Your task to perform on an android device: What's on my calendar today? Image 0: 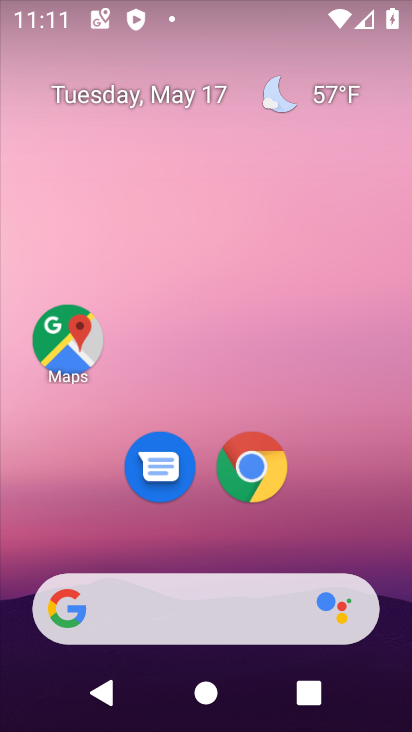
Step 0: drag from (194, 637) to (309, 166)
Your task to perform on an android device: What's on my calendar today? Image 1: 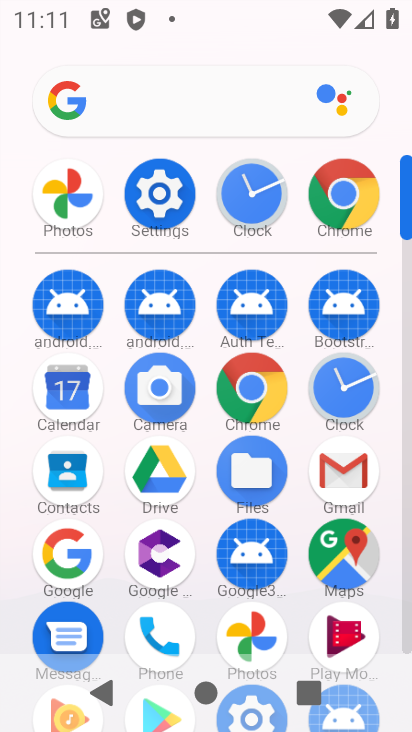
Step 1: click (75, 391)
Your task to perform on an android device: What's on my calendar today? Image 2: 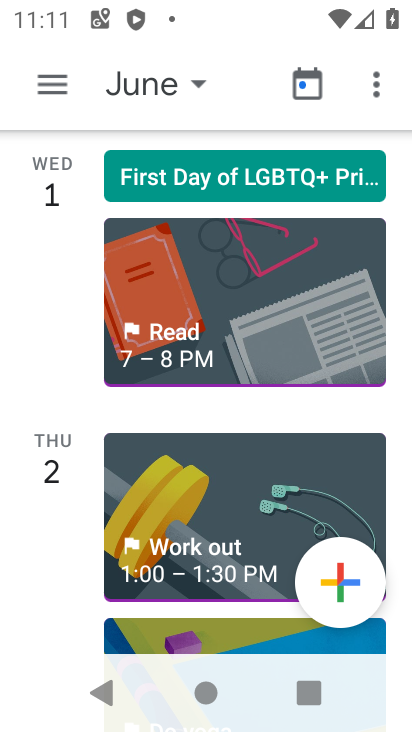
Step 2: click (8, 98)
Your task to perform on an android device: What's on my calendar today? Image 3: 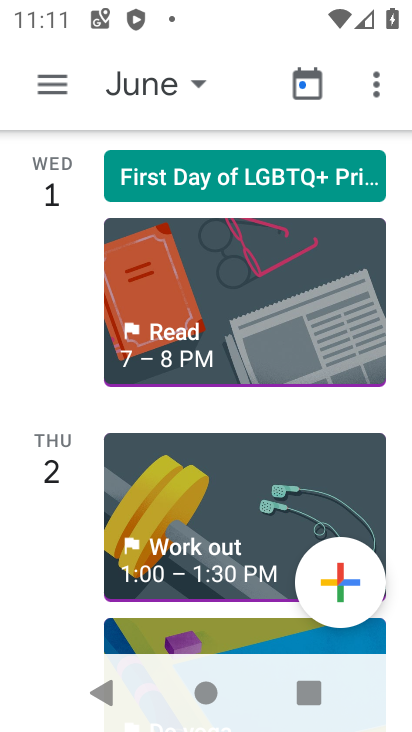
Step 3: click (53, 85)
Your task to perform on an android device: What's on my calendar today? Image 4: 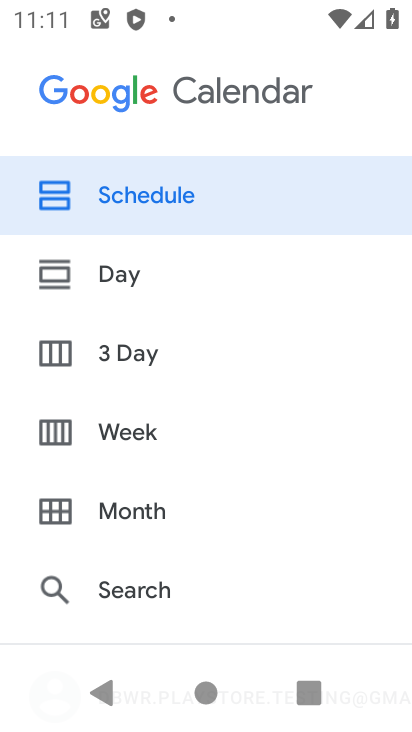
Step 4: click (115, 506)
Your task to perform on an android device: What's on my calendar today? Image 5: 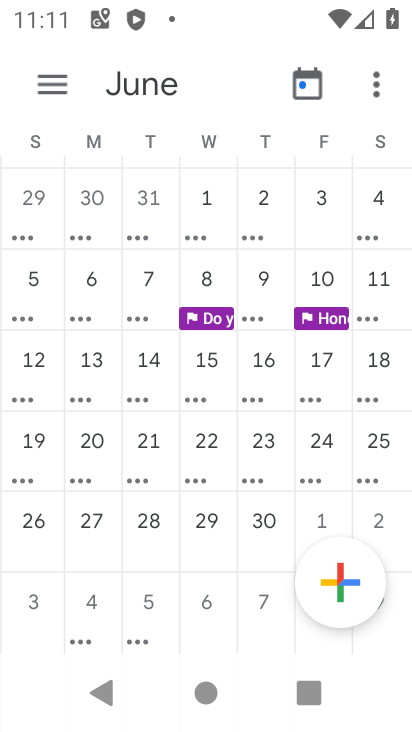
Step 5: drag from (51, 435) to (411, 416)
Your task to perform on an android device: What's on my calendar today? Image 6: 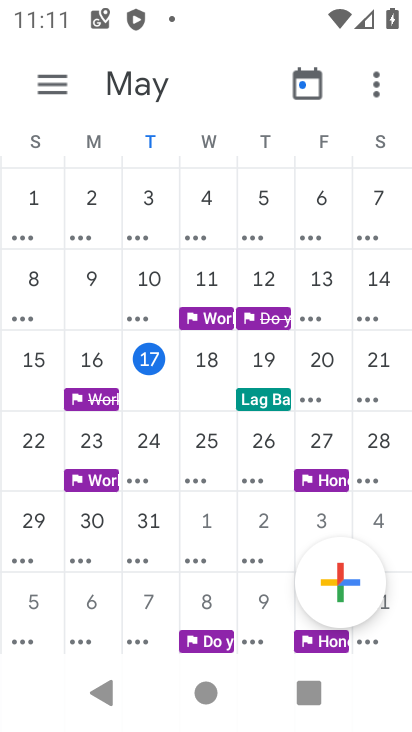
Step 6: click (148, 373)
Your task to perform on an android device: What's on my calendar today? Image 7: 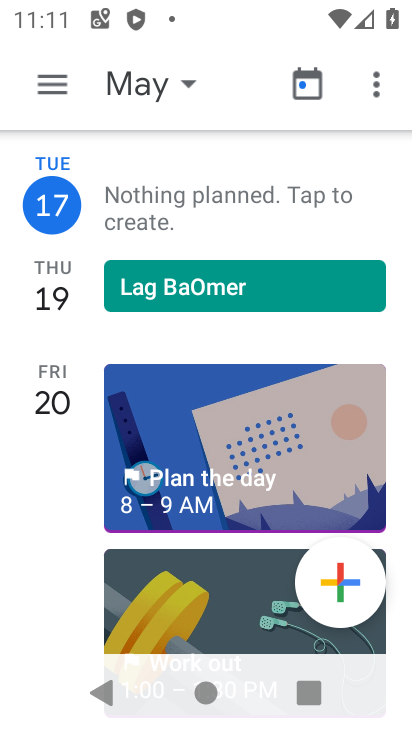
Step 7: task complete